Your task to perform on an android device: Open accessibility settings Image 0: 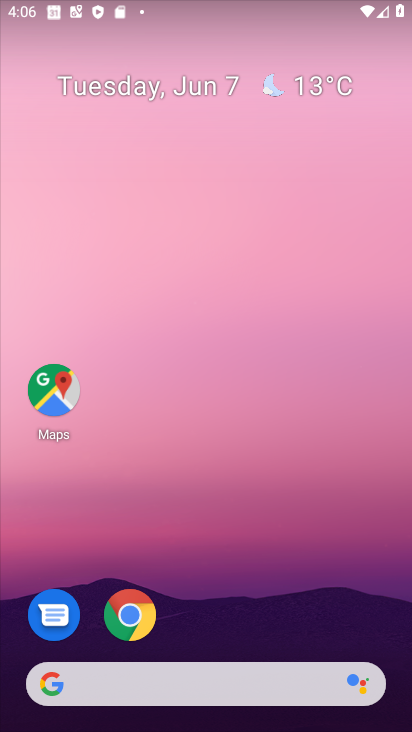
Step 0: drag from (233, 659) to (369, 38)
Your task to perform on an android device: Open accessibility settings Image 1: 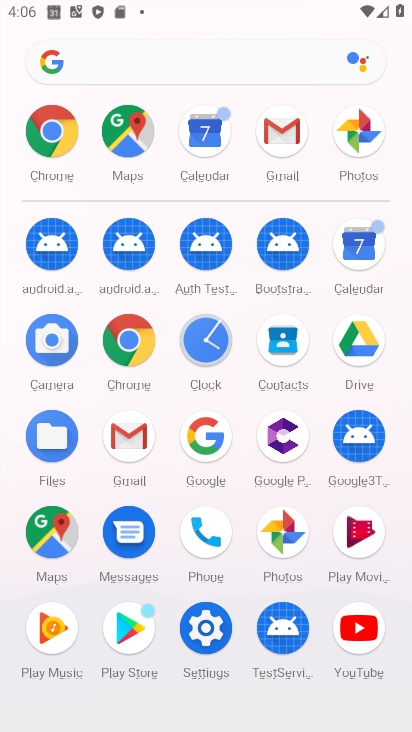
Step 1: click (214, 634)
Your task to perform on an android device: Open accessibility settings Image 2: 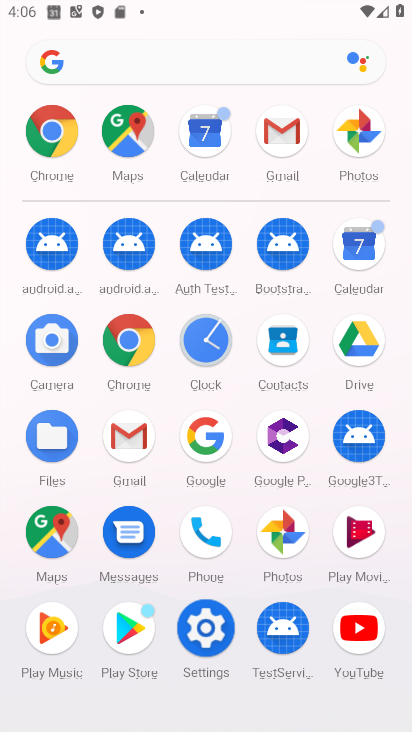
Step 2: click (209, 629)
Your task to perform on an android device: Open accessibility settings Image 3: 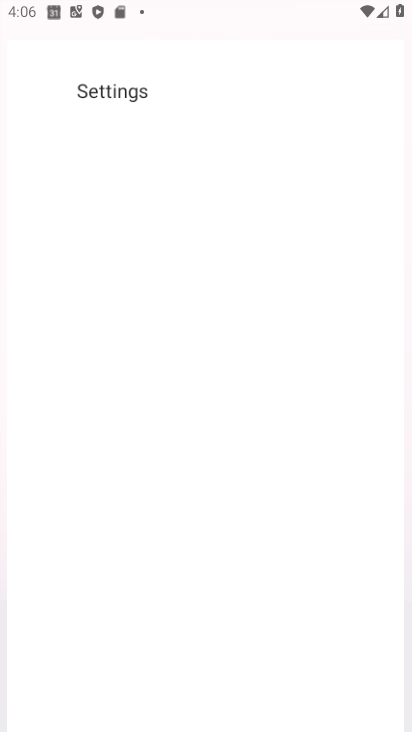
Step 3: click (209, 628)
Your task to perform on an android device: Open accessibility settings Image 4: 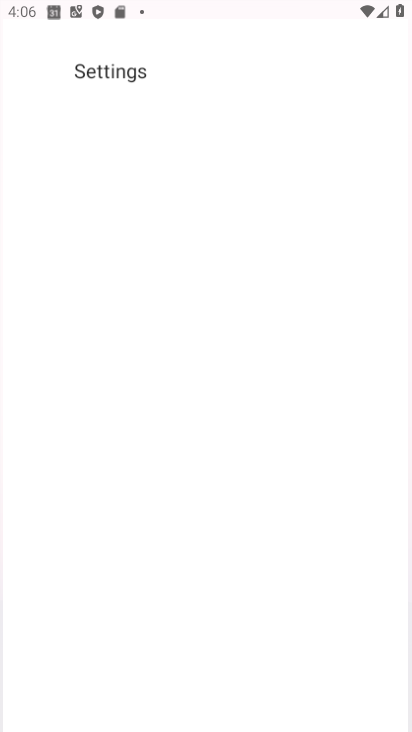
Step 4: click (206, 626)
Your task to perform on an android device: Open accessibility settings Image 5: 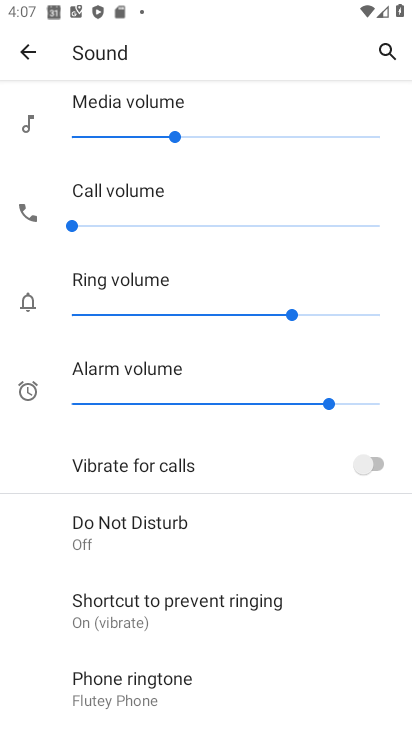
Step 5: click (27, 45)
Your task to perform on an android device: Open accessibility settings Image 6: 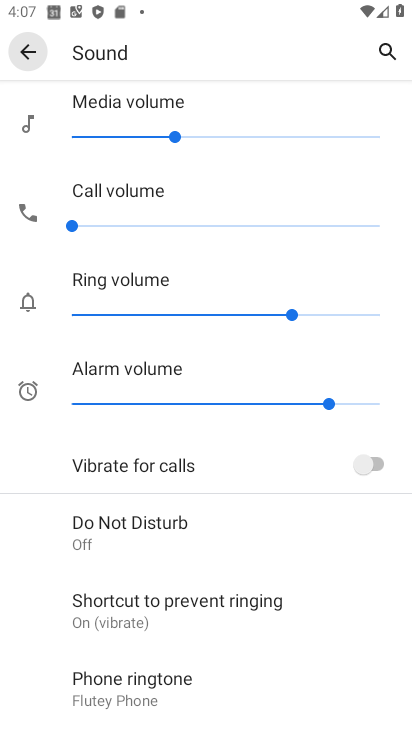
Step 6: click (22, 48)
Your task to perform on an android device: Open accessibility settings Image 7: 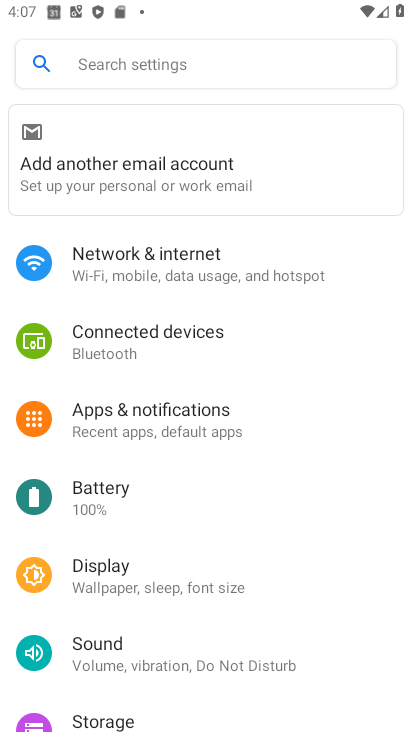
Step 7: drag from (165, 524) to (124, 143)
Your task to perform on an android device: Open accessibility settings Image 8: 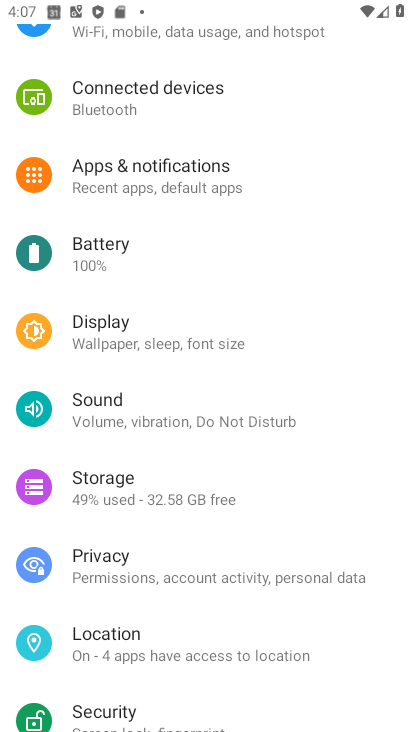
Step 8: drag from (183, 417) to (159, 194)
Your task to perform on an android device: Open accessibility settings Image 9: 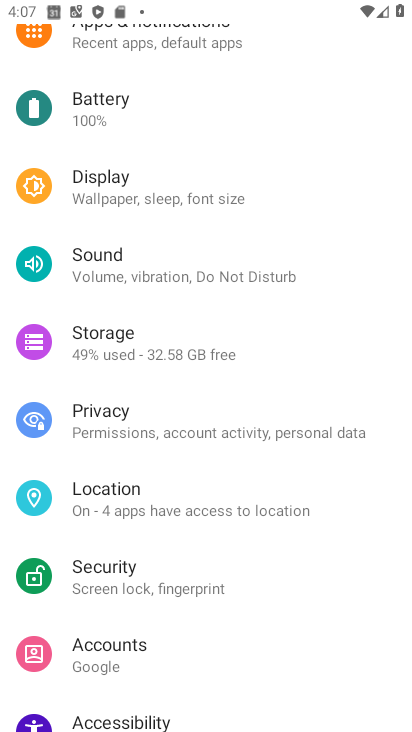
Step 9: drag from (200, 521) to (223, 222)
Your task to perform on an android device: Open accessibility settings Image 10: 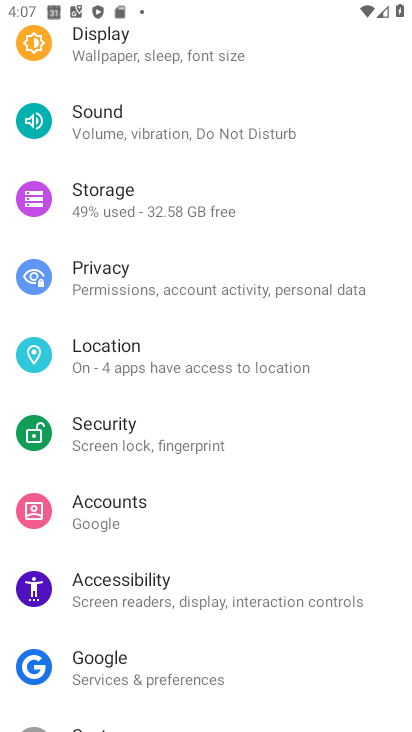
Step 10: drag from (159, 449) to (123, 197)
Your task to perform on an android device: Open accessibility settings Image 11: 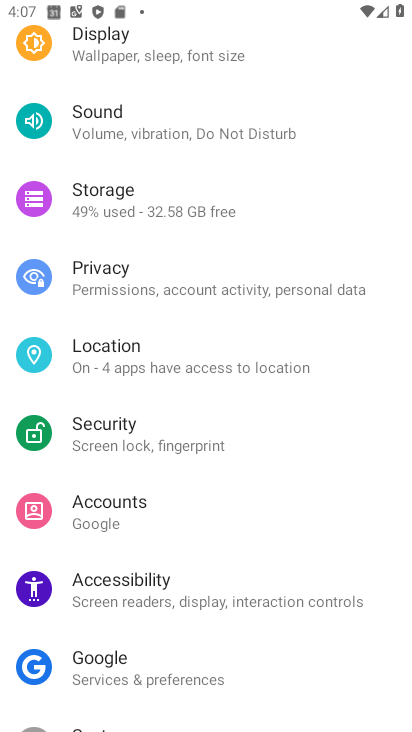
Step 11: drag from (185, 550) to (130, 111)
Your task to perform on an android device: Open accessibility settings Image 12: 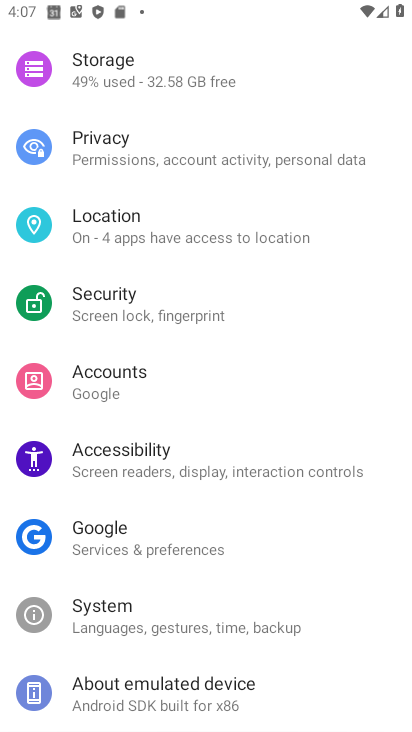
Step 12: drag from (170, 612) to (102, 252)
Your task to perform on an android device: Open accessibility settings Image 13: 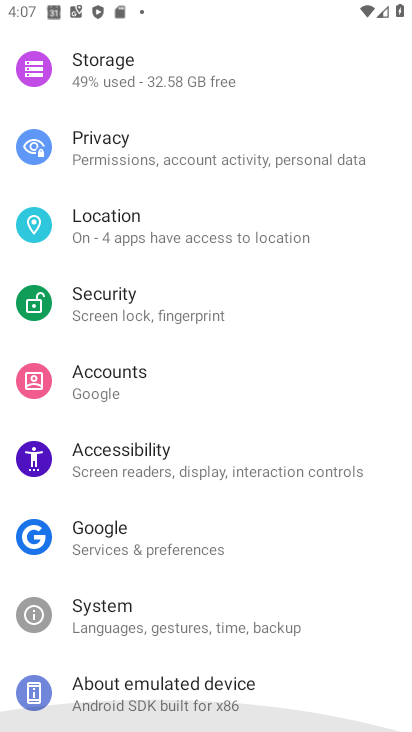
Step 13: drag from (108, 413) to (96, 268)
Your task to perform on an android device: Open accessibility settings Image 14: 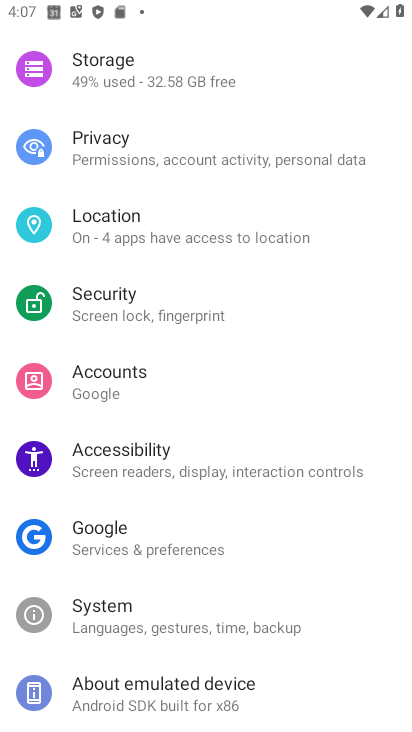
Step 14: click (107, 437)
Your task to perform on an android device: Open accessibility settings Image 15: 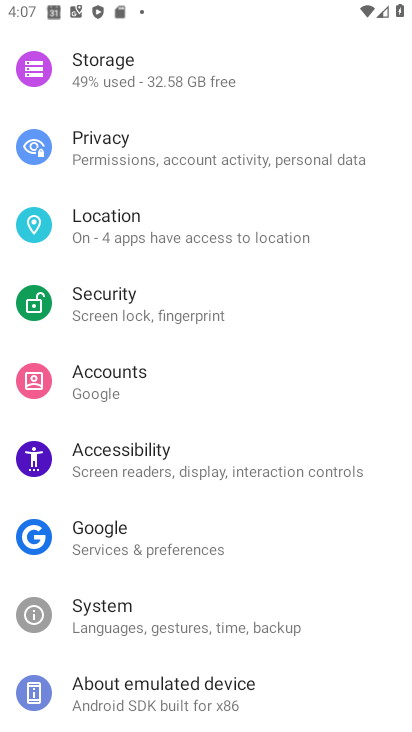
Step 15: click (110, 464)
Your task to perform on an android device: Open accessibility settings Image 16: 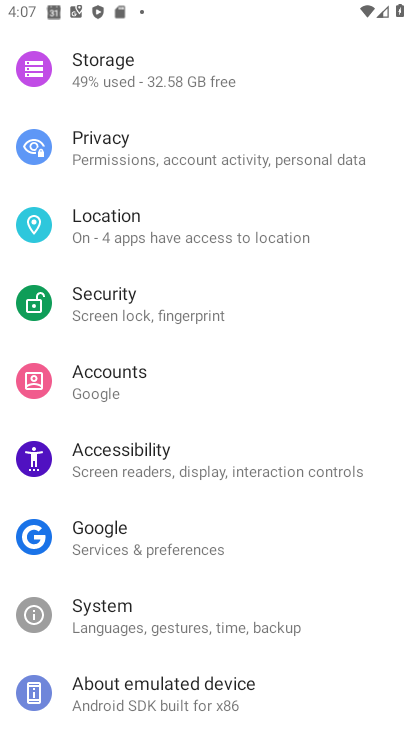
Step 16: click (110, 464)
Your task to perform on an android device: Open accessibility settings Image 17: 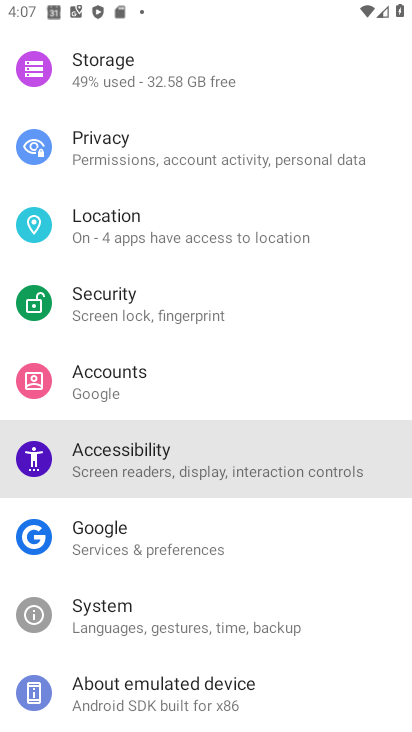
Step 17: click (110, 464)
Your task to perform on an android device: Open accessibility settings Image 18: 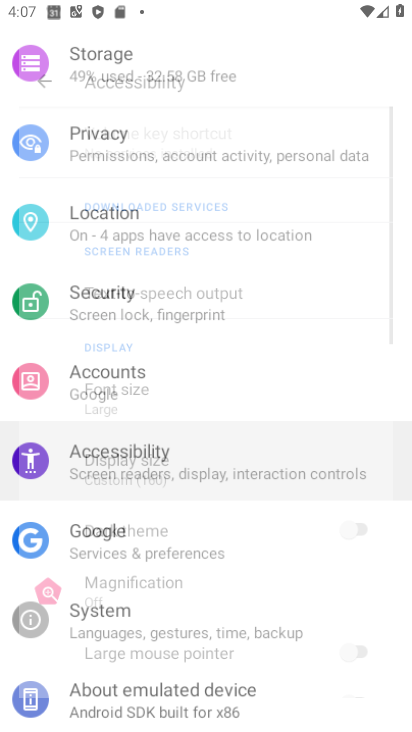
Step 18: click (110, 464)
Your task to perform on an android device: Open accessibility settings Image 19: 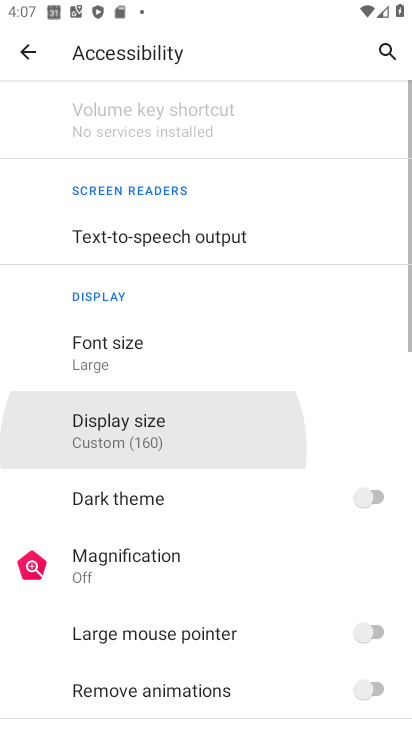
Step 19: click (110, 464)
Your task to perform on an android device: Open accessibility settings Image 20: 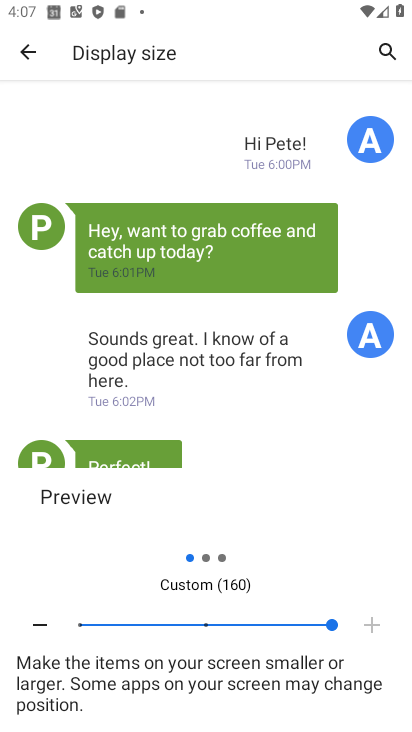
Step 20: click (23, 53)
Your task to perform on an android device: Open accessibility settings Image 21: 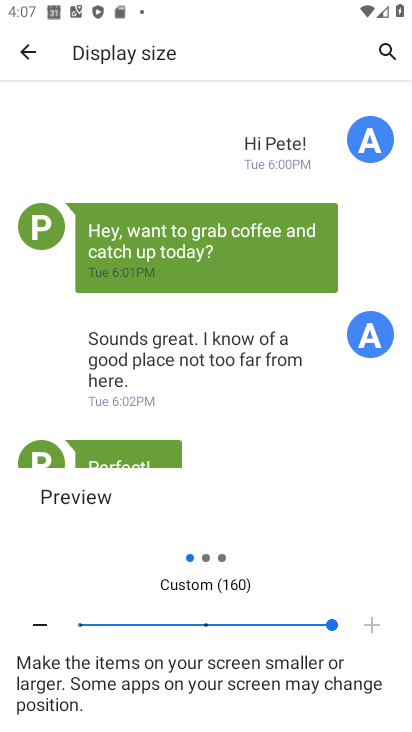
Step 21: click (22, 53)
Your task to perform on an android device: Open accessibility settings Image 22: 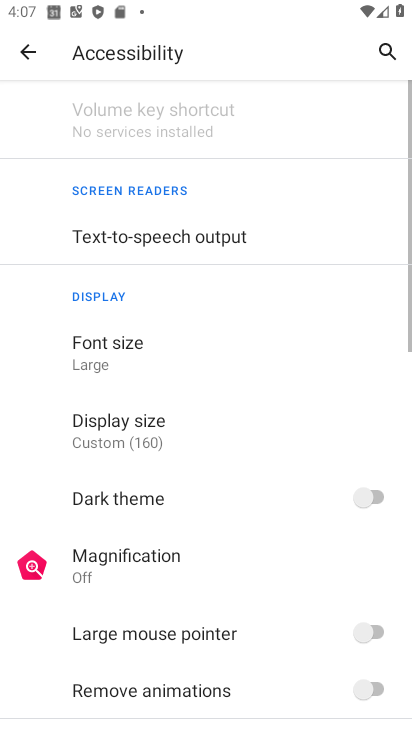
Step 22: click (20, 51)
Your task to perform on an android device: Open accessibility settings Image 23: 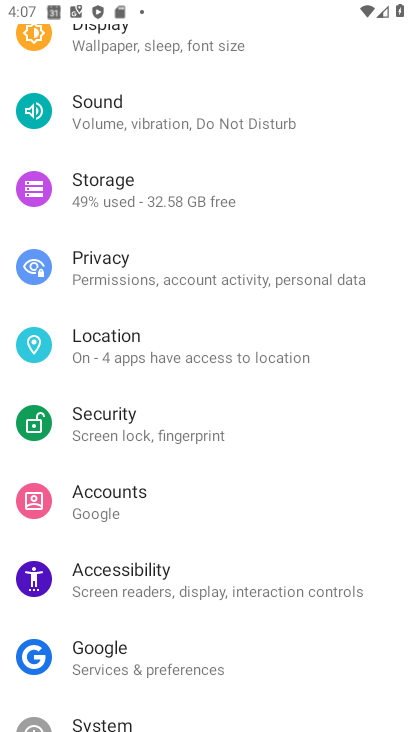
Step 23: click (111, 581)
Your task to perform on an android device: Open accessibility settings Image 24: 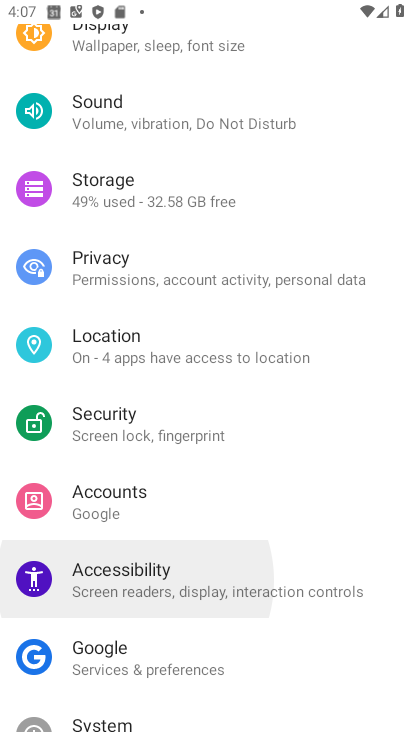
Step 24: click (111, 581)
Your task to perform on an android device: Open accessibility settings Image 25: 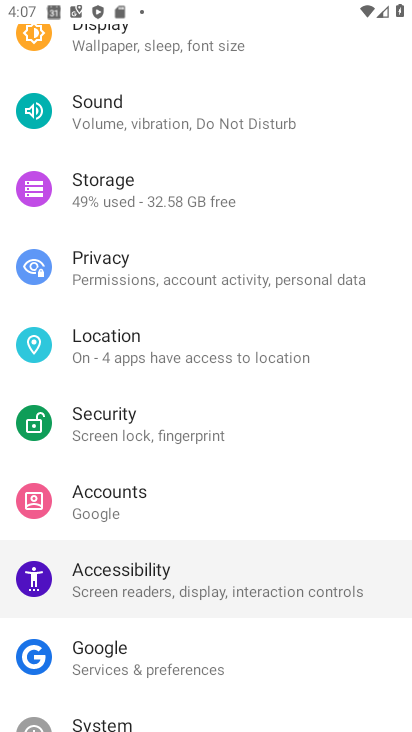
Step 25: click (110, 582)
Your task to perform on an android device: Open accessibility settings Image 26: 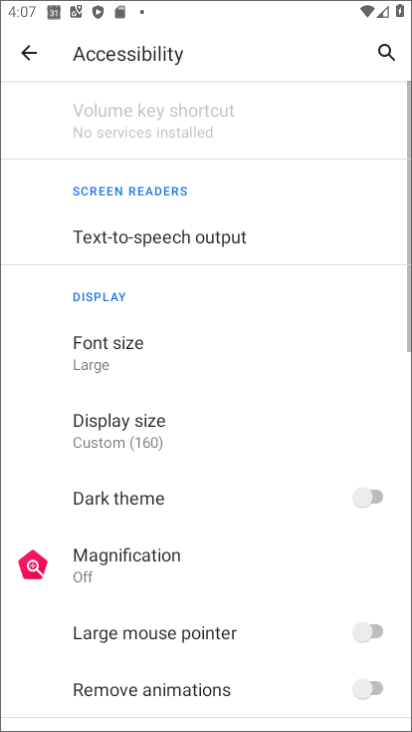
Step 26: click (107, 583)
Your task to perform on an android device: Open accessibility settings Image 27: 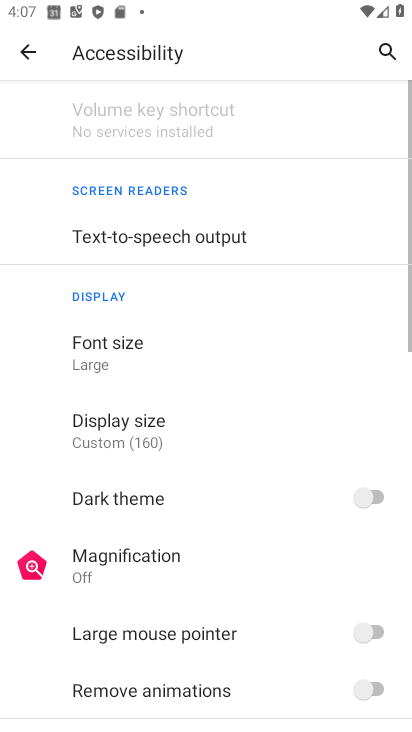
Step 27: click (108, 582)
Your task to perform on an android device: Open accessibility settings Image 28: 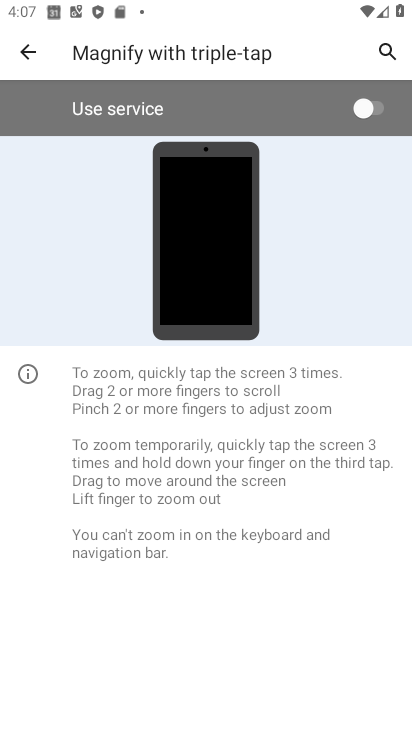
Step 28: task complete